Your task to perform on an android device: refresh tabs in the chrome app Image 0: 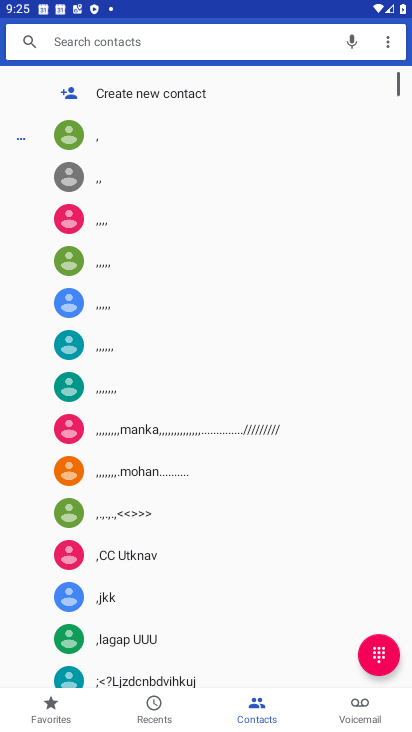
Step 0: drag from (228, 680) to (217, 499)
Your task to perform on an android device: refresh tabs in the chrome app Image 1: 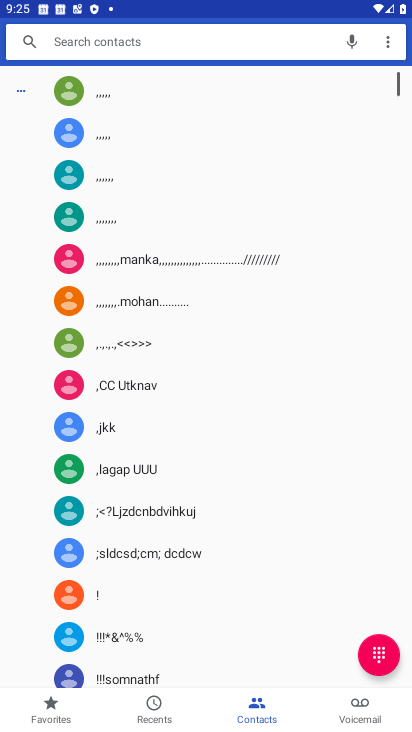
Step 1: press home button
Your task to perform on an android device: refresh tabs in the chrome app Image 2: 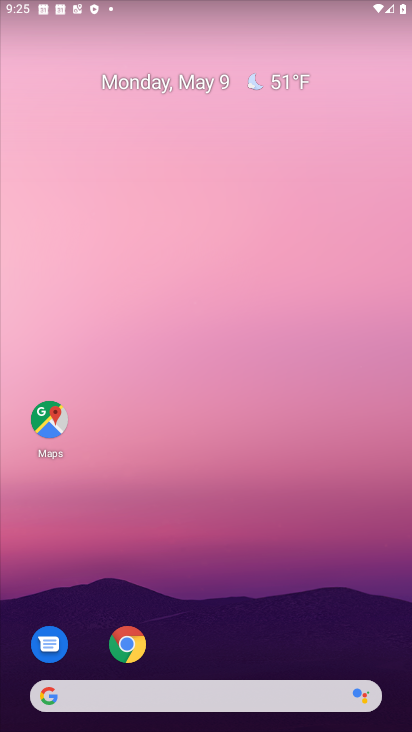
Step 2: click (110, 639)
Your task to perform on an android device: refresh tabs in the chrome app Image 3: 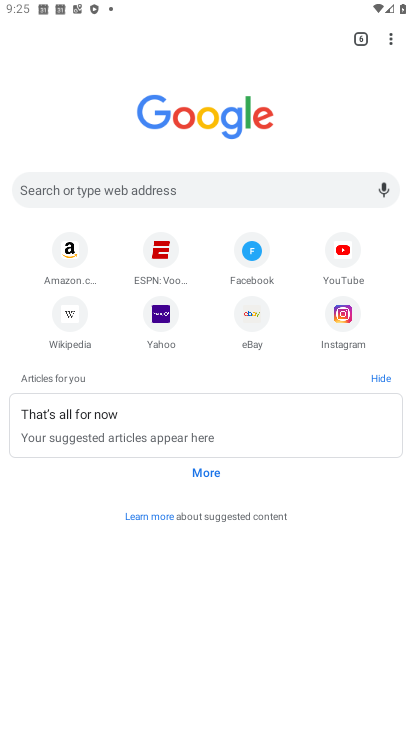
Step 3: click (407, 43)
Your task to perform on an android device: refresh tabs in the chrome app Image 4: 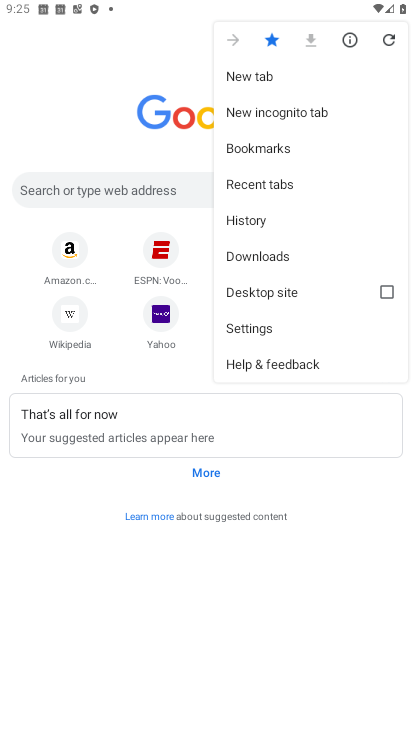
Step 4: click (393, 36)
Your task to perform on an android device: refresh tabs in the chrome app Image 5: 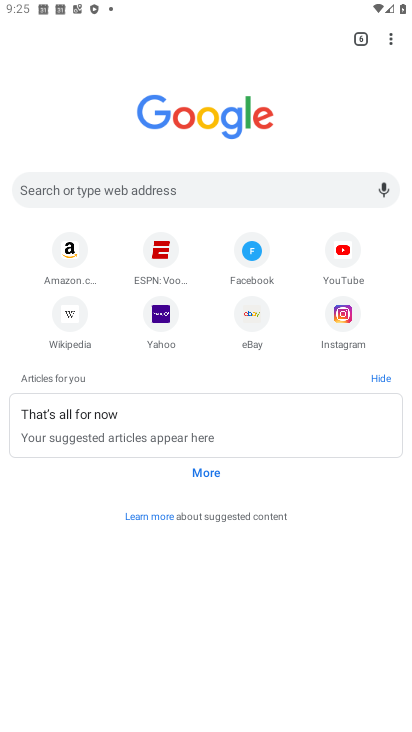
Step 5: click (399, 35)
Your task to perform on an android device: refresh tabs in the chrome app Image 6: 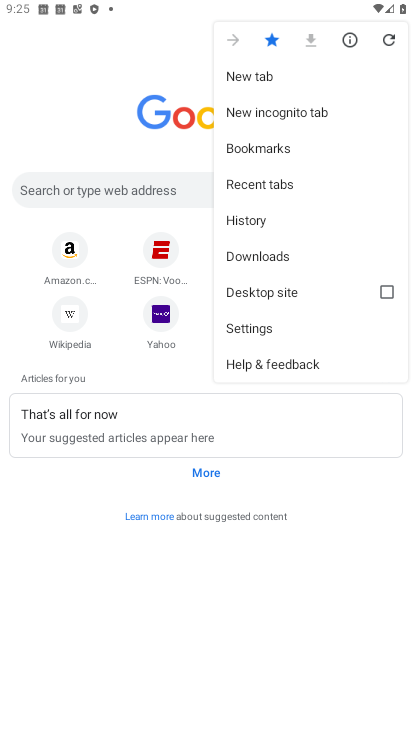
Step 6: click (379, 38)
Your task to perform on an android device: refresh tabs in the chrome app Image 7: 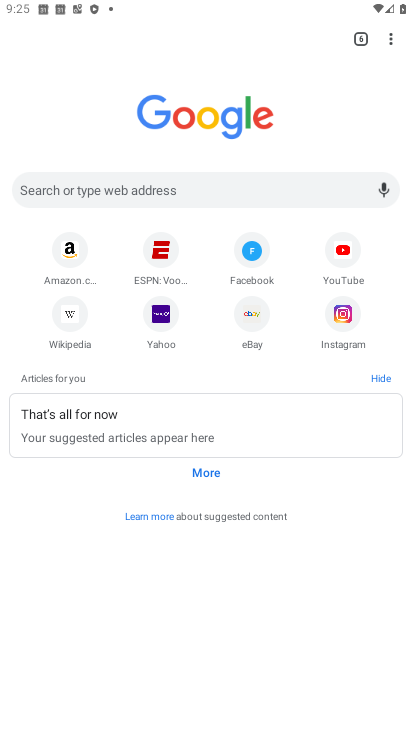
Step 7: task complete